Your task to perform on an android device: Search for pizza restaurants on Maps Image 0: 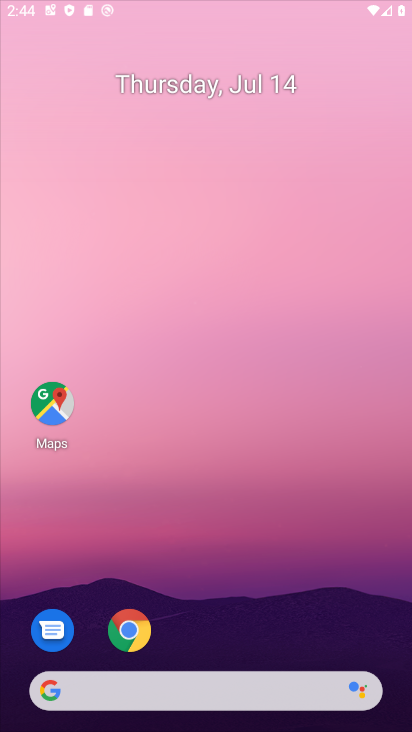
Step 0: press home button
Your task to perform on an android device: Search for pizza restaurants on Maps Image 1: 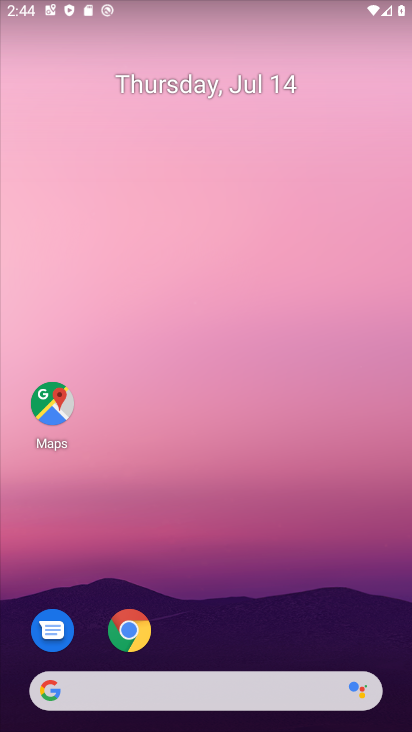
Step 1: click (56, 398)
Your task to perform on an android device: Search for pizza restaurants on Maps Image 2: 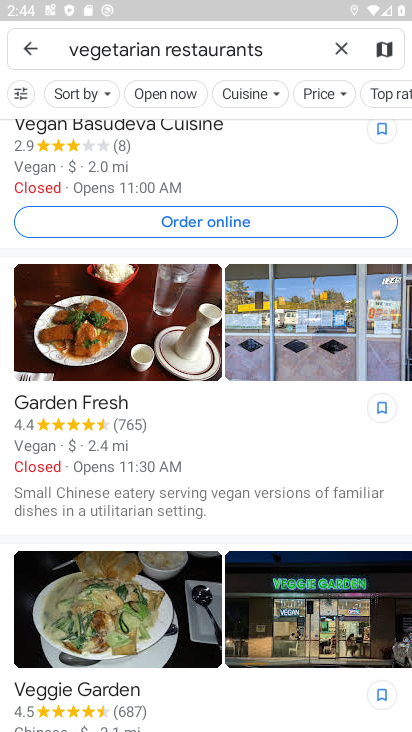
Step 2: click (345, 46)
Your task to perform on an android device: Search for pizza restaurants on Maps Image 3: 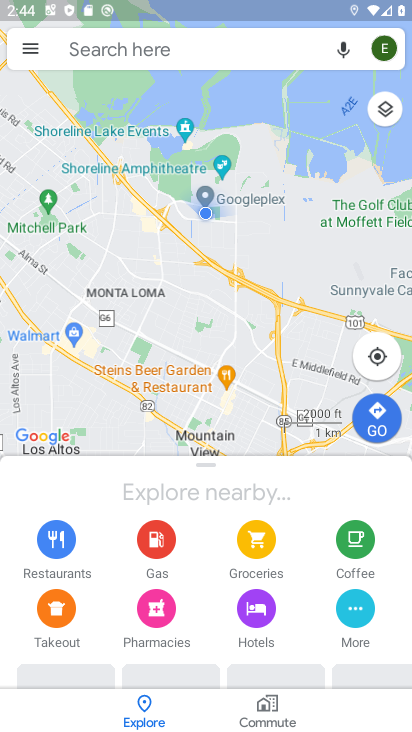
Step 3: click (154, 45)
Your task to perform on an android device: Search for pizza restaurants on Maps Image 4: 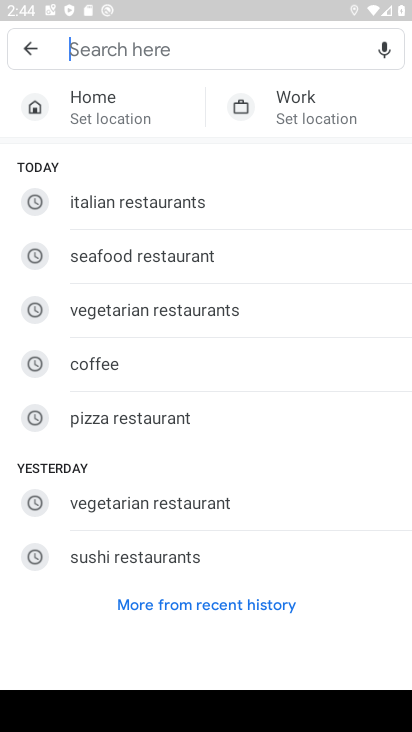
Step 4: click (129, 414)
Your task to perform on an android device: Search for pizza restaurants on Maps Image 5: 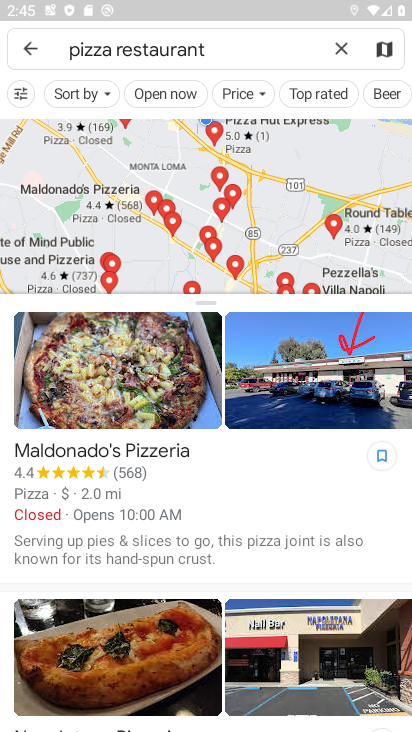
Step 5: task complete